Your task to perform on an android device: change the clock display to show seconds Image 0: 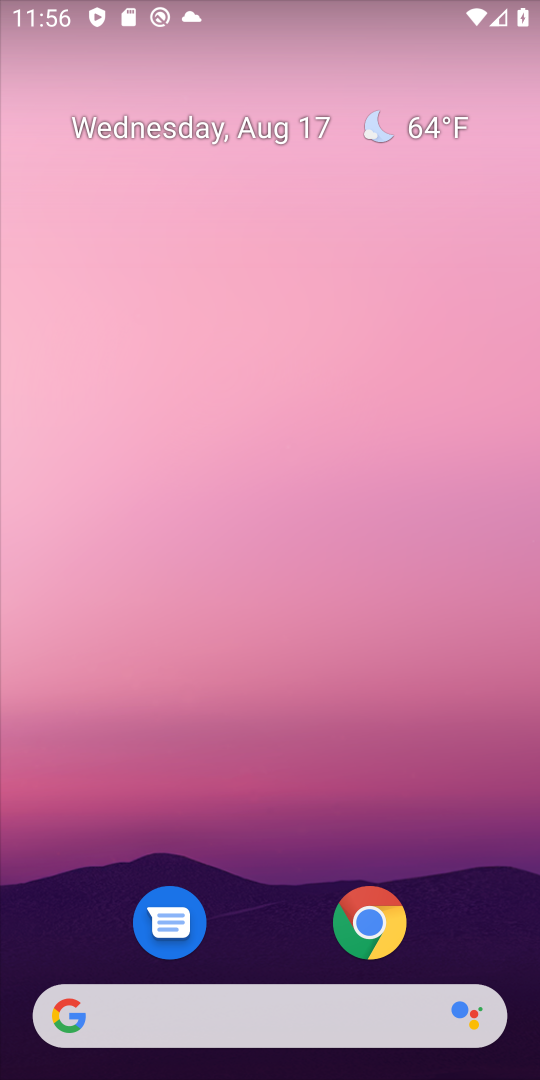
Step 0: press home button
Your task to perform on an android device: change the clock display to show seconds Image 1: 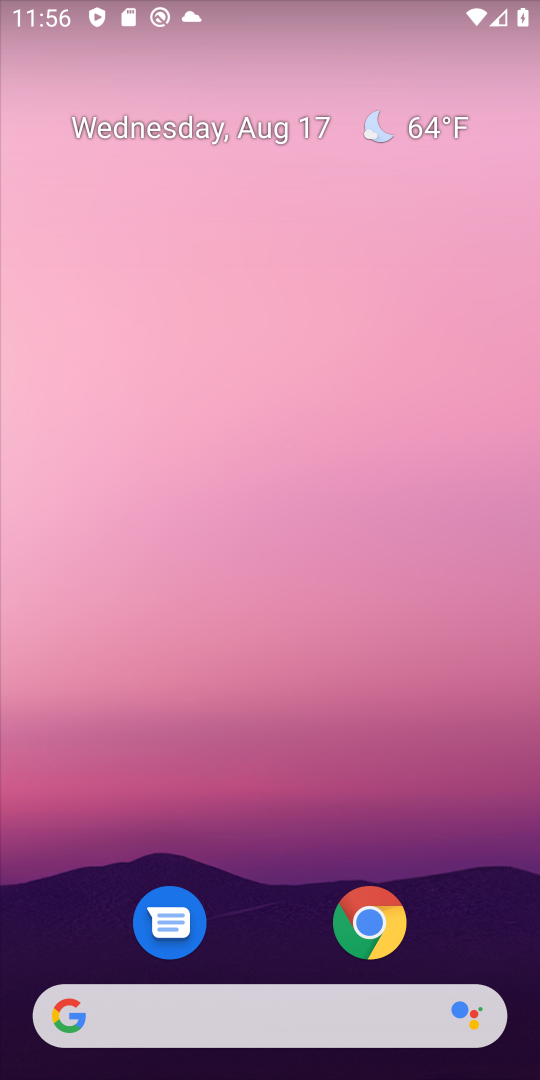
Step 1: drag from (252, 939) to (353, 31)
Your task to perform on an android device: change the clock display to show seconds Image 2: 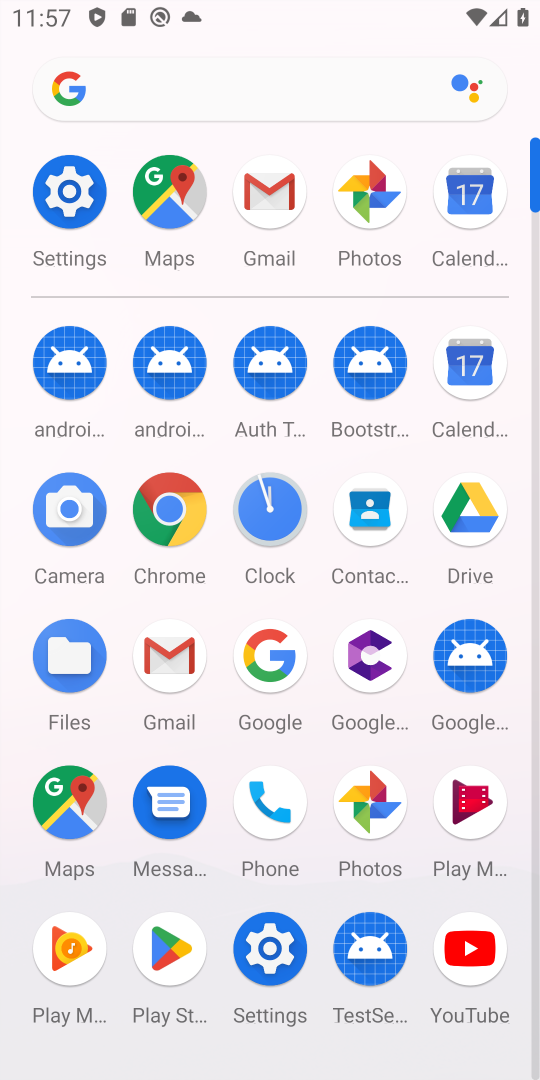
Step 2: click (275, 509)
Your task to perform on an android device: change the clock display to show seconds Image 3: 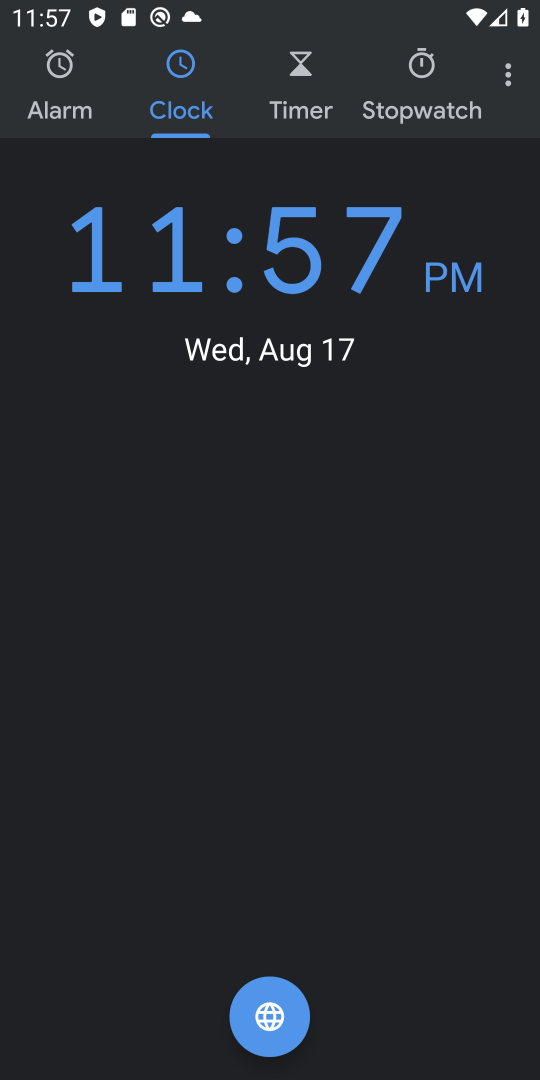
Step 3: click (503, 77)
Your task to perform on an android device: change the clock display to show seconds Image 4: 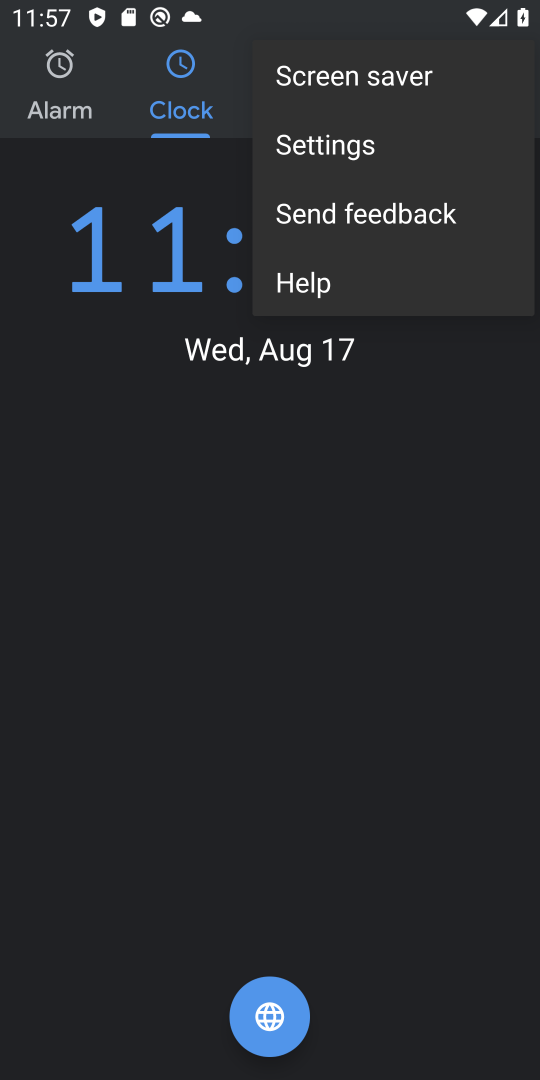
Step 4: click (349, 147)
Your task to perform on an android device: change the clock display to show seconds Image 5: 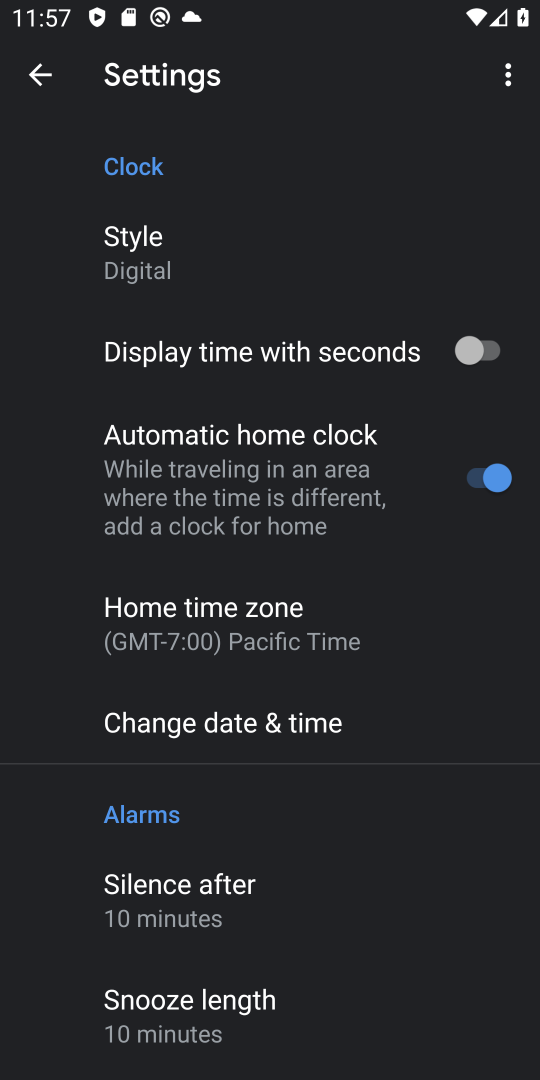
Step 5: click (473, 344)
Your task to perform on an android device: change the clock display to show seconds Image 6: 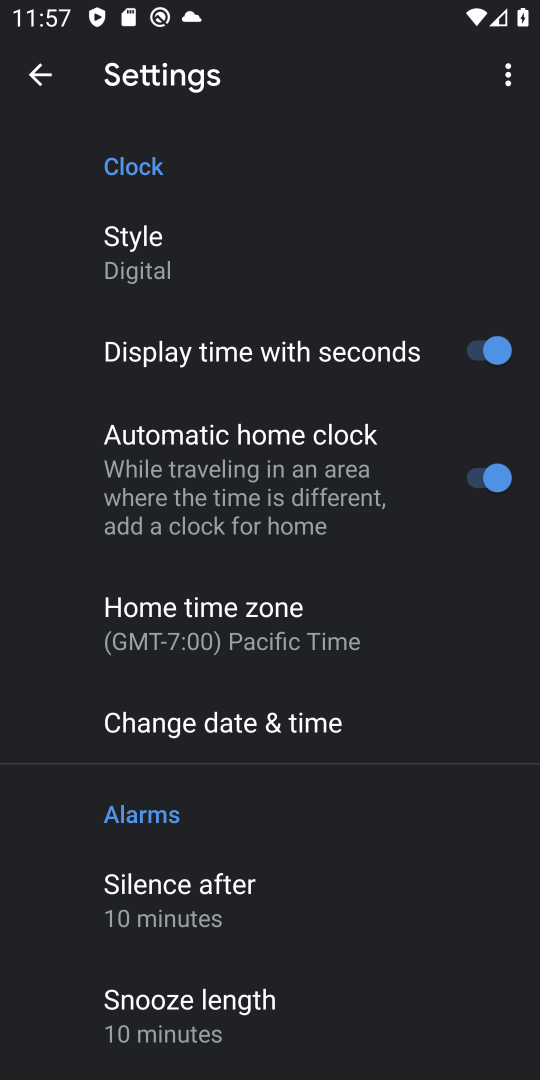
Step 6: task complete